Your task to perform on an android device: Search for seafood restaurants on Google Maps Image 0: 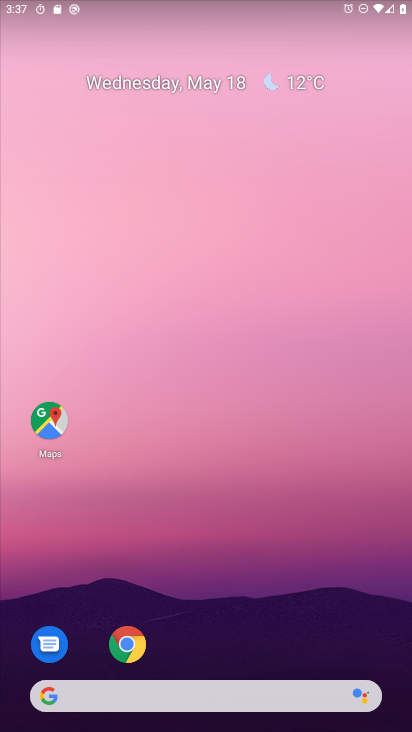
Step 0: click (49, 415)
Your task to perform on an android device: Search for seafood restaurants on Google Maps Image 1: 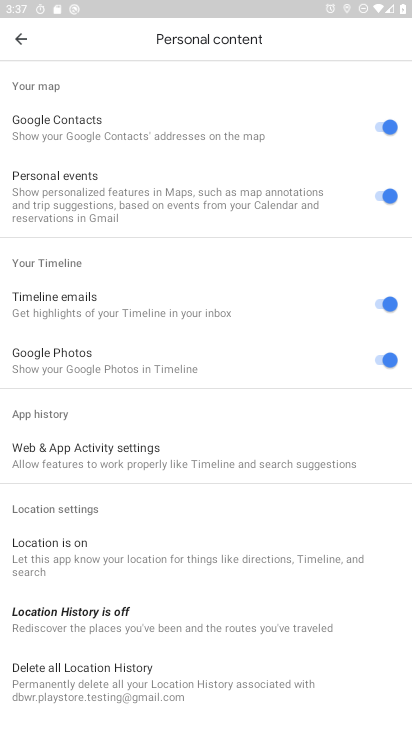
Step 1: click (21, 48)
Your task to perform on an android device: Search for seafood restaurants on Google Maps Image 2: 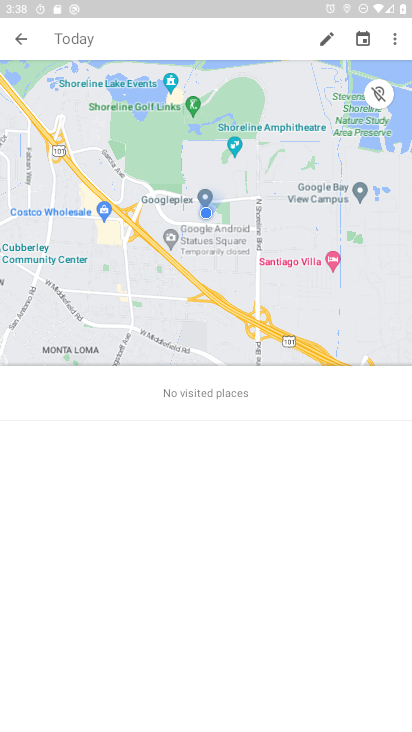
Step 2: click (114, 39)
Your task to perform on an android device: Search for seafood restaurants on Google Maps Image 3: 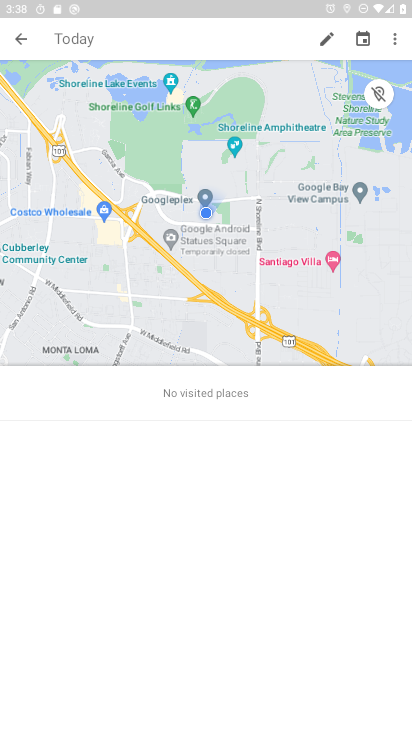
Step 3: click (18, 42)
Your task to perform on an android device: Search for seafood restaurants on Google Maps Image 4: 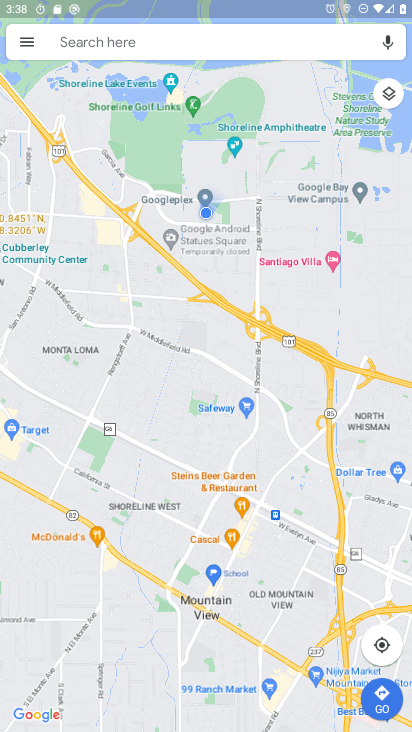
Step 4: click (99, 36)
Your task to perform on an android device: Search for seafood restaurants on Google Maps Image 5: 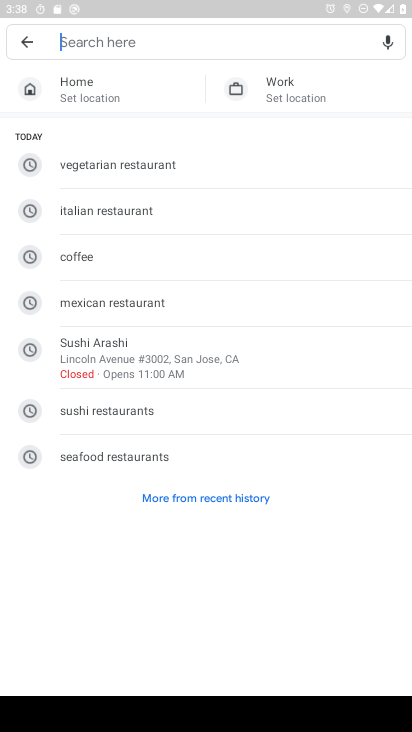
Step 5: type "seafood restaurants "
Your task to perform on an android device: Search for seafood restaurants on Google Maps Image 6: 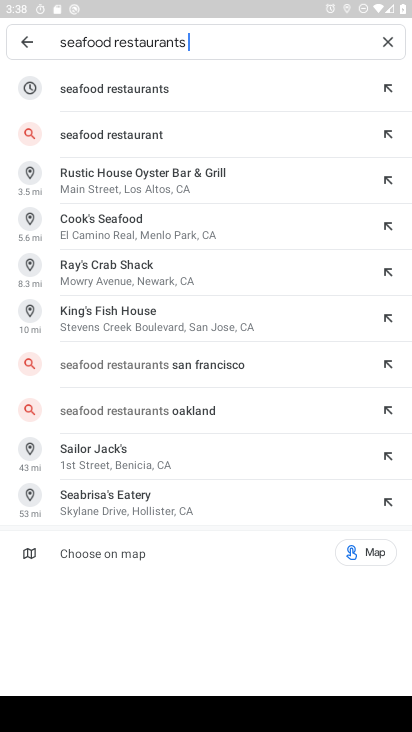
Step 6: click (74, 128)
Your task to perform on an android device: Search for seafood restaurants on Google Maps Image 7: 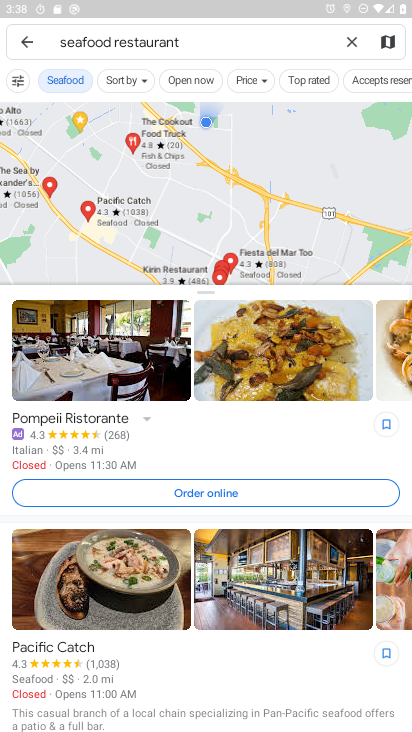
Step 7: task complete